Your task to perform on an android device: Show the shopping cart on target. Search for macbook pro 15 inch on target, select the first entry, and add it to the cart. Image 0: 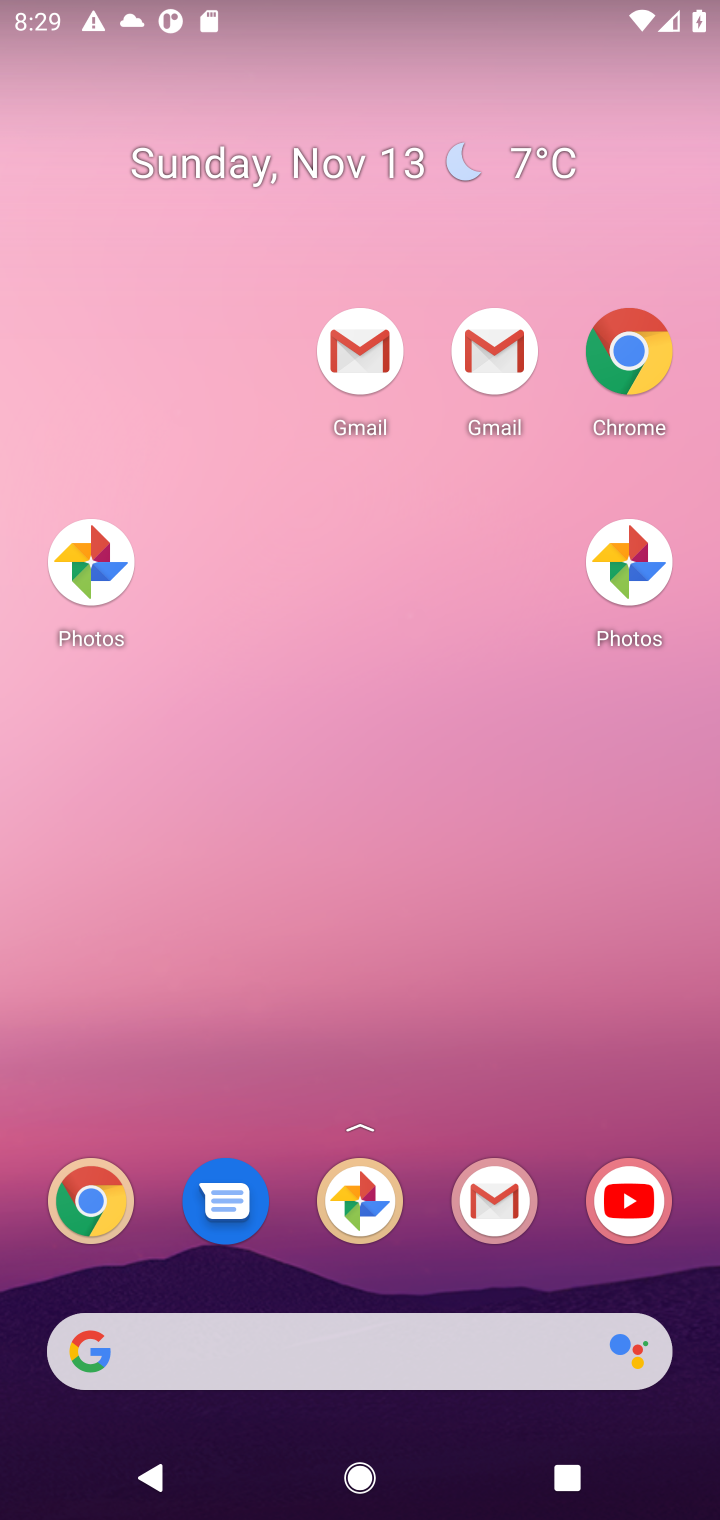
Step 0: drag from (303, 1026) to (145, 198)
Your task to perform on an android device: Show the shopping cart on target. Search for macbook pro 15 inch on target, select the first entry, and add it to the cart. Image 1: 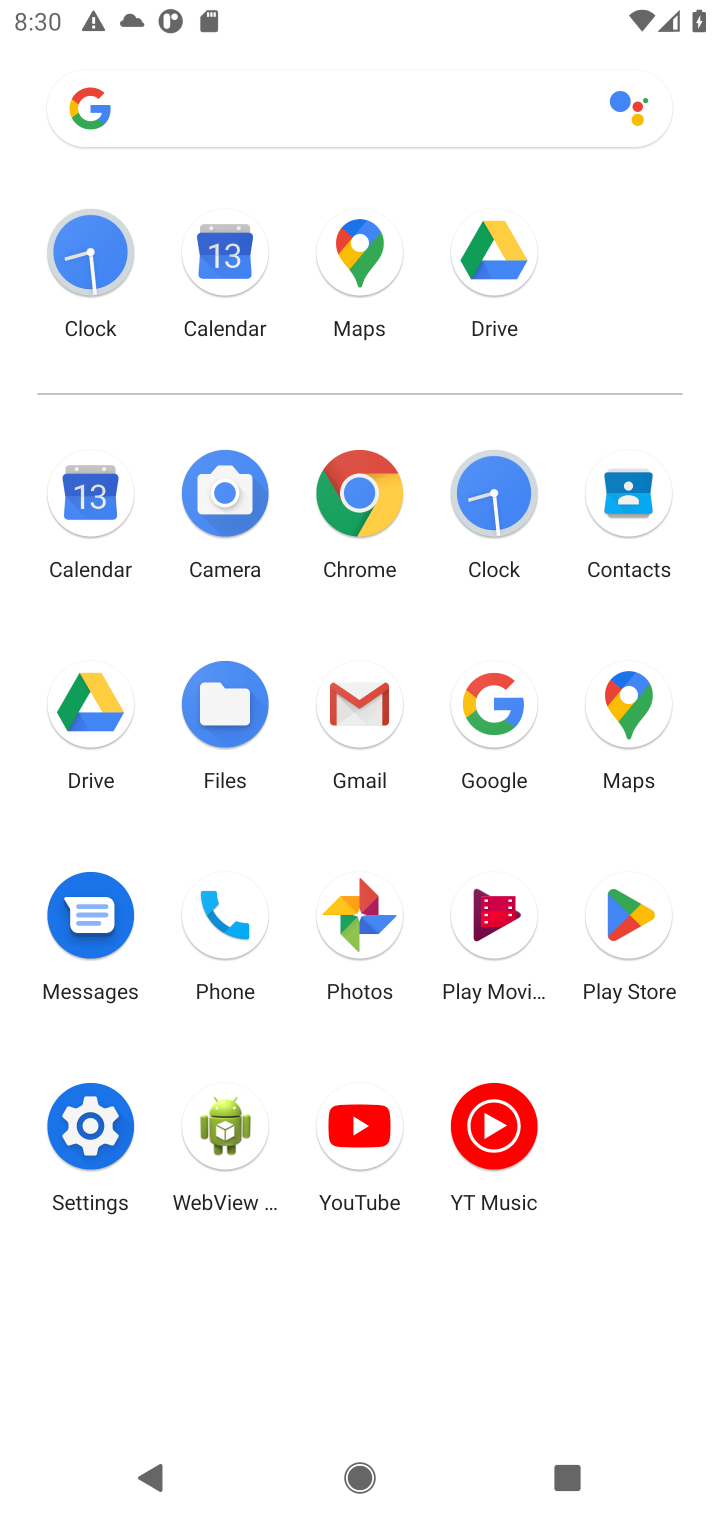
Step 1: click (357, 485)
Your task to perform on an android device: Show the shopping cart on target. Search for macbook pro 15 inch on target, select the first entry, and add it to the cart. Image 2: 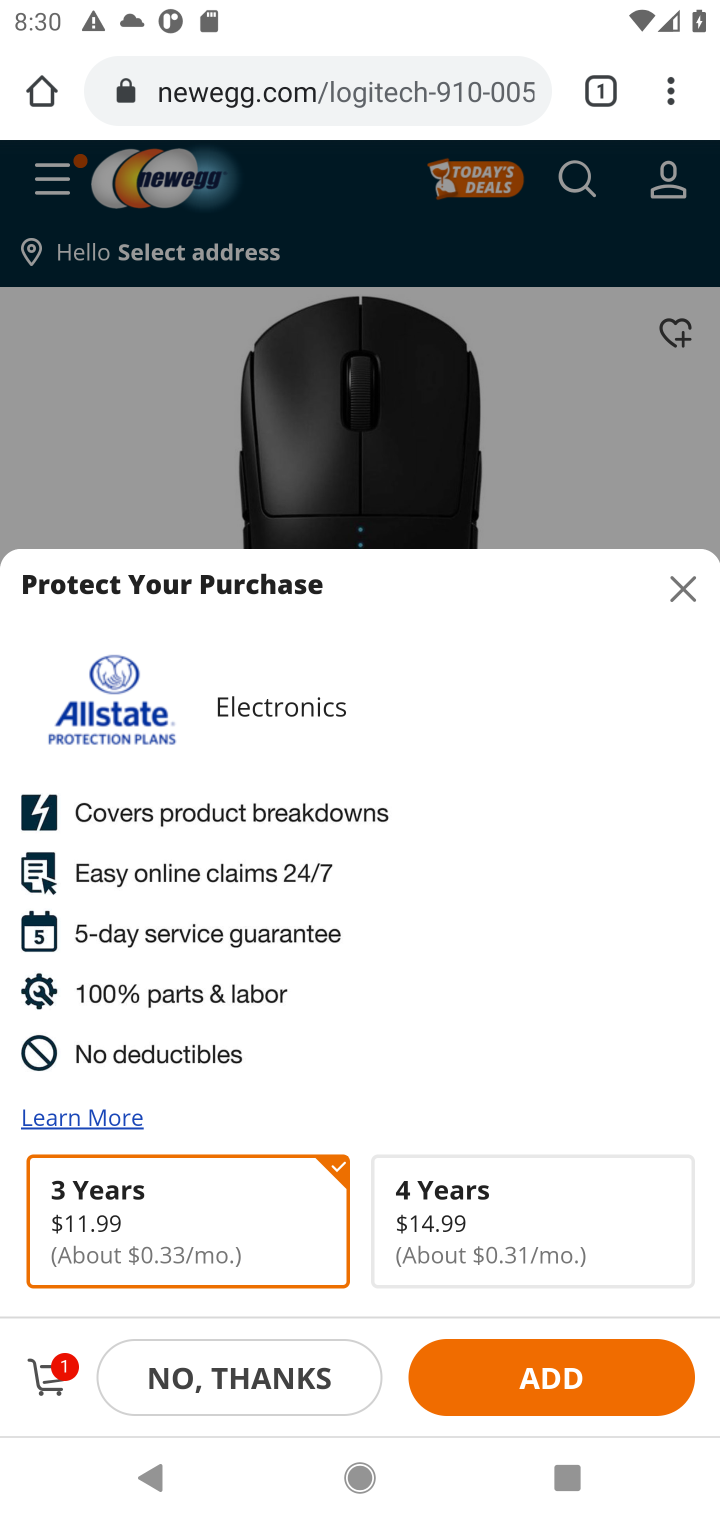
Step 2: click (341, 66)
Your task to perform on an android device: Show the shopping cart on target. Search for macbook pro 15 inch on target, select the first entry, and add it to the cart. Image 3: 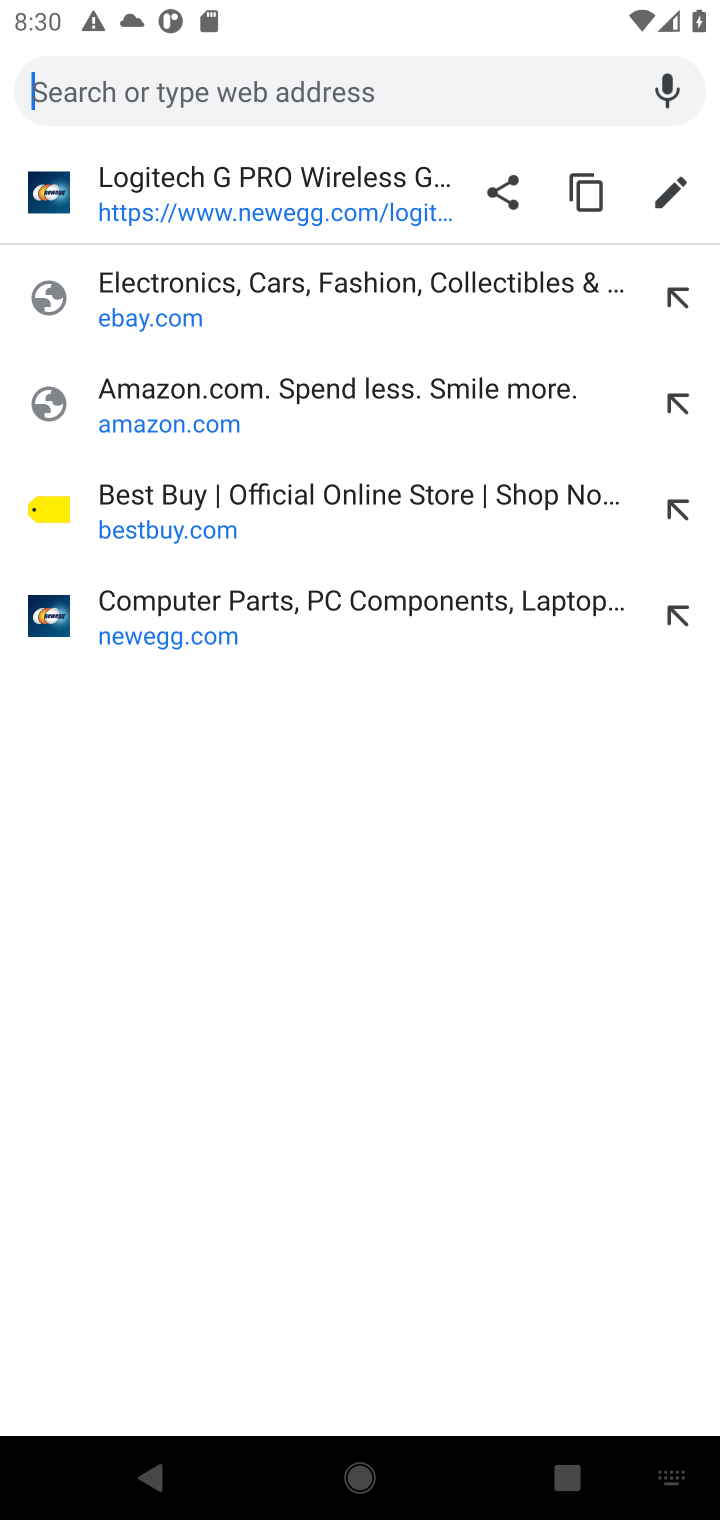
Step 3: type "target.com"
Your task to perform on an android device: Show the shopping cart on target. Search for macbook pro 15 inch on target, select the first entry, and add it to the cart. Image 4: 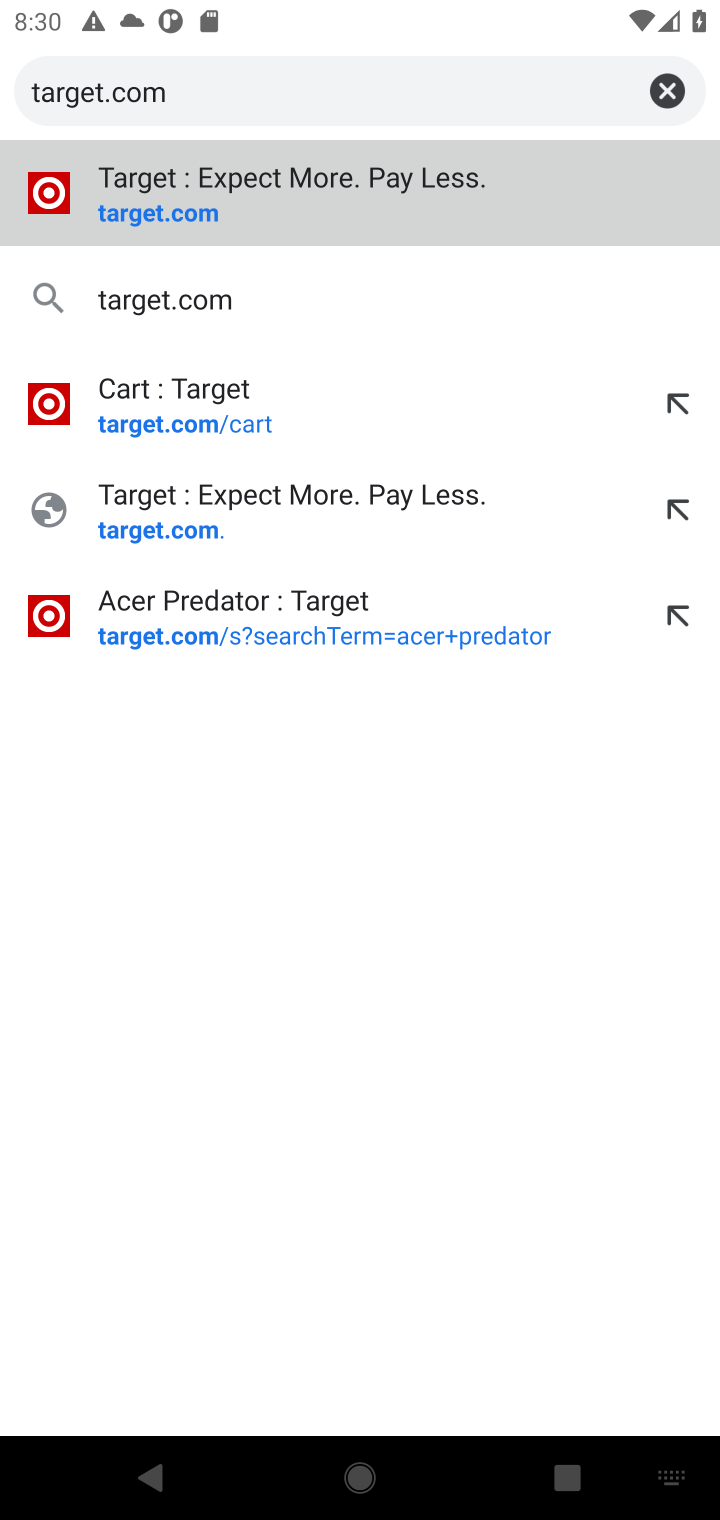
Step 4: press enter
Your task to perform on an android device: Show the shopping cart on target. Search for macbook pro 15 inch on target, select the first entry, and add it to the cart. Image 5: 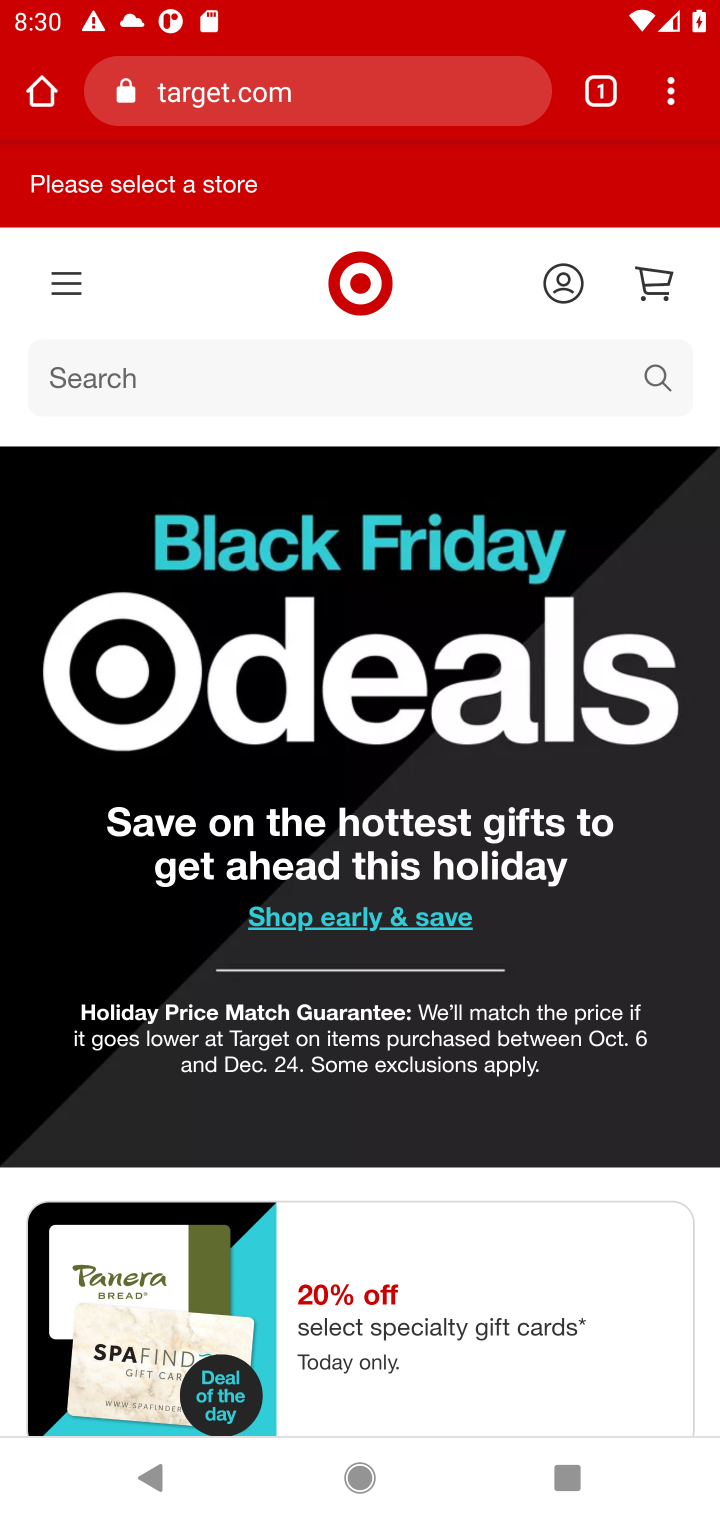
Step 5: click (649, 272)
Your task to perform on an android device: Show the shopping cart on target. Search for macbook pro 15 inch on target, select the first entry, and add it to the cart. Image 6: 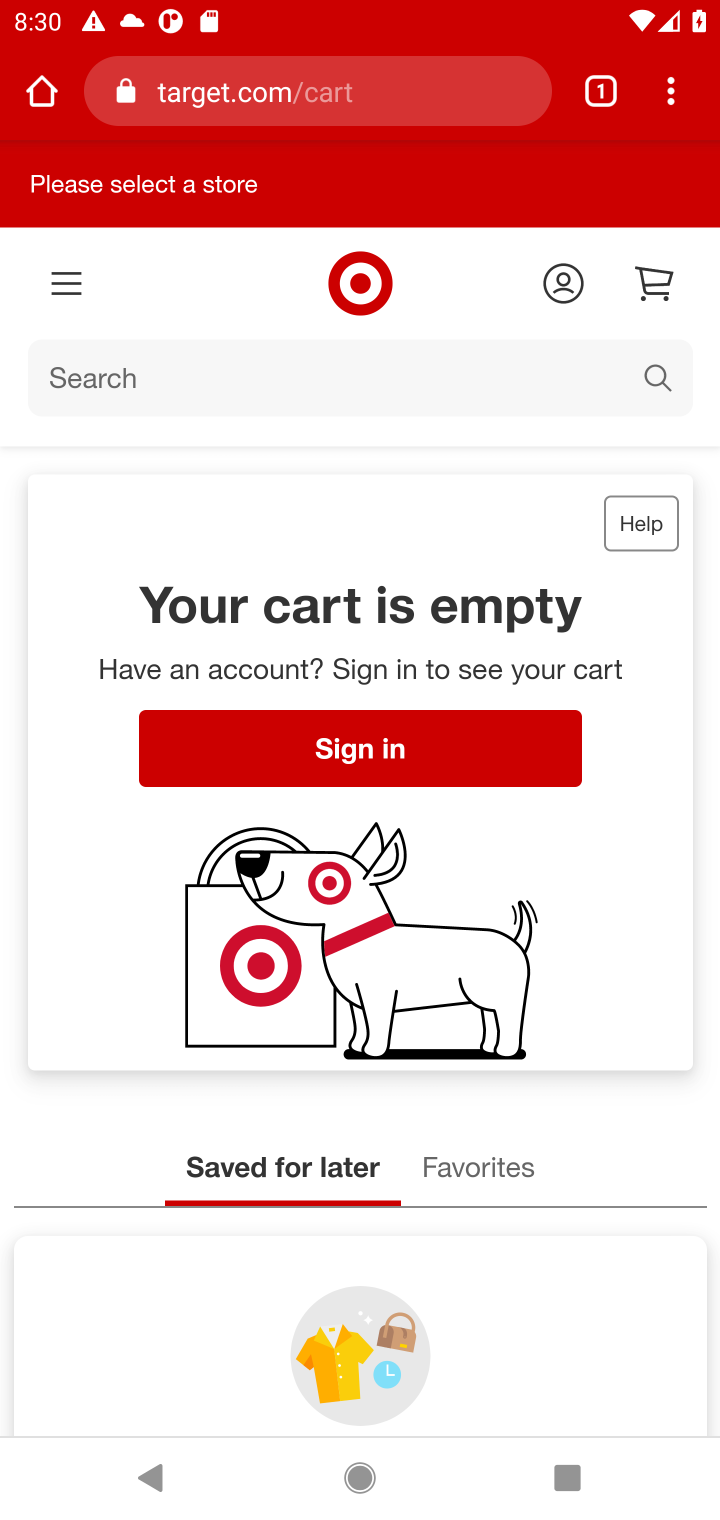
Step 6: click (533, 397)
Your task to perform on an android device: Show the shopping cart on target. Search for macbook pro 15 inch on target, select the first entry, and add it to the cart. Image 7: 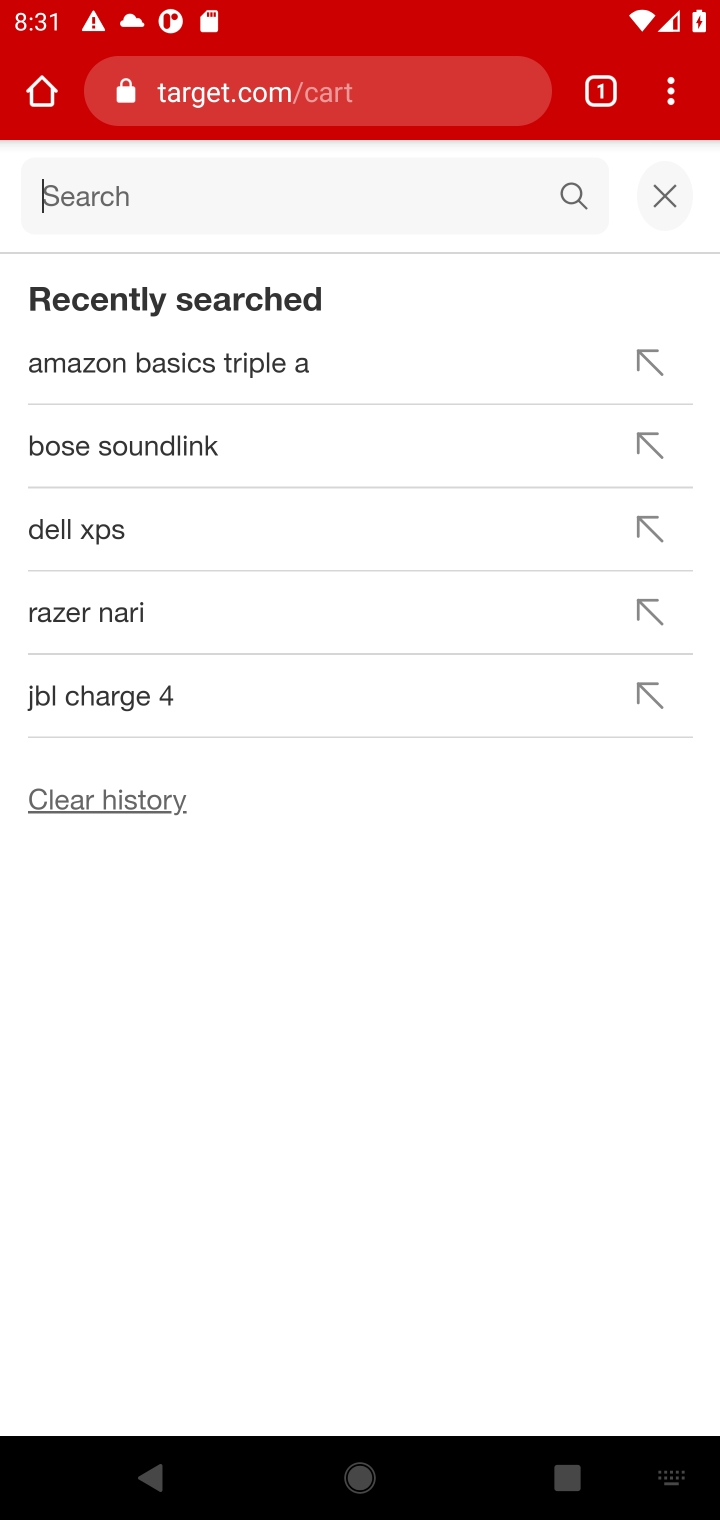
Step 7: type "macbook pro 15 inch"
Your task to perform on an android device: Show the shopping cart on target. Search for macbook pro 15 inch on target, select the first entry, and add it to the cart. Image 8: 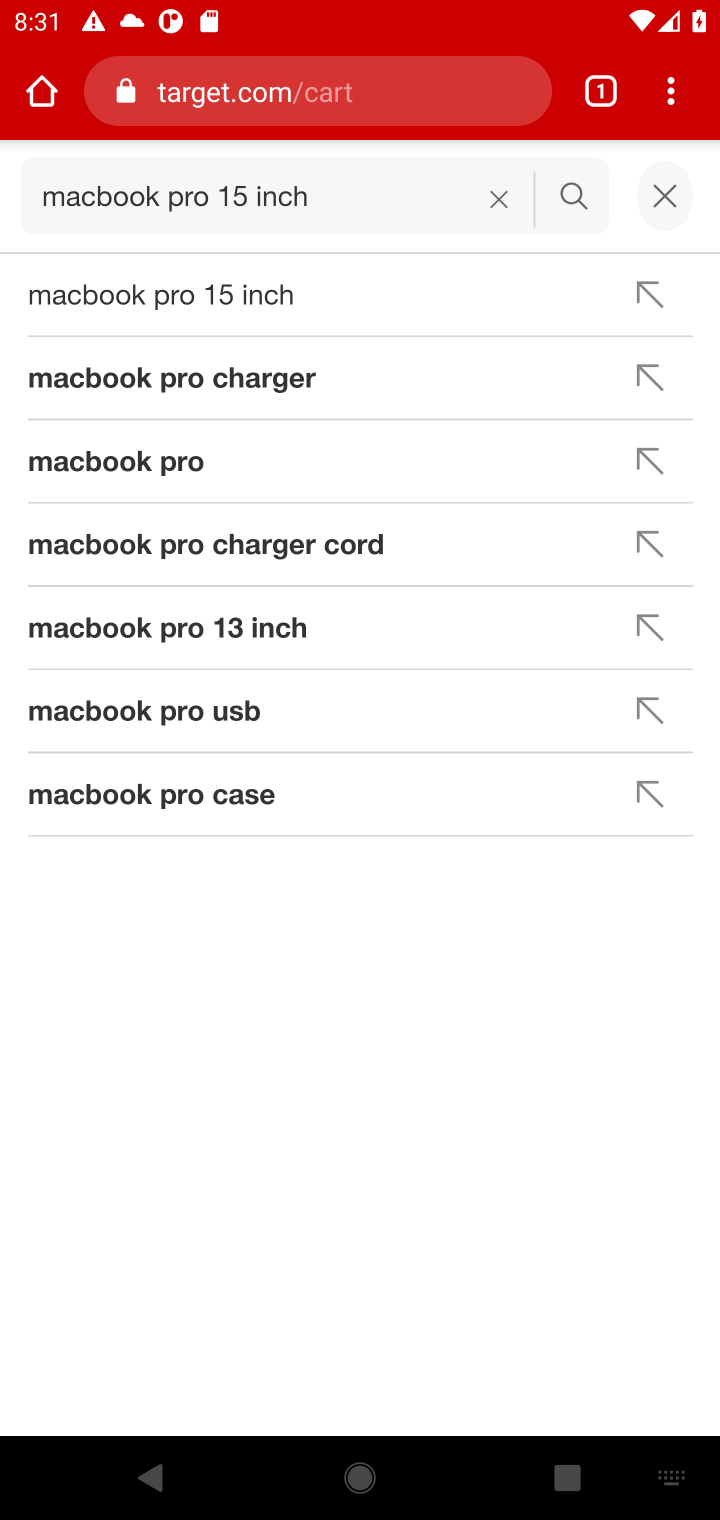
Step 8: press enter
Your task to perform on an android device: Show the shopping cart on target. Search for macbook pro 15 inch on target, select the first entry, and add it to the cart. Image 9: 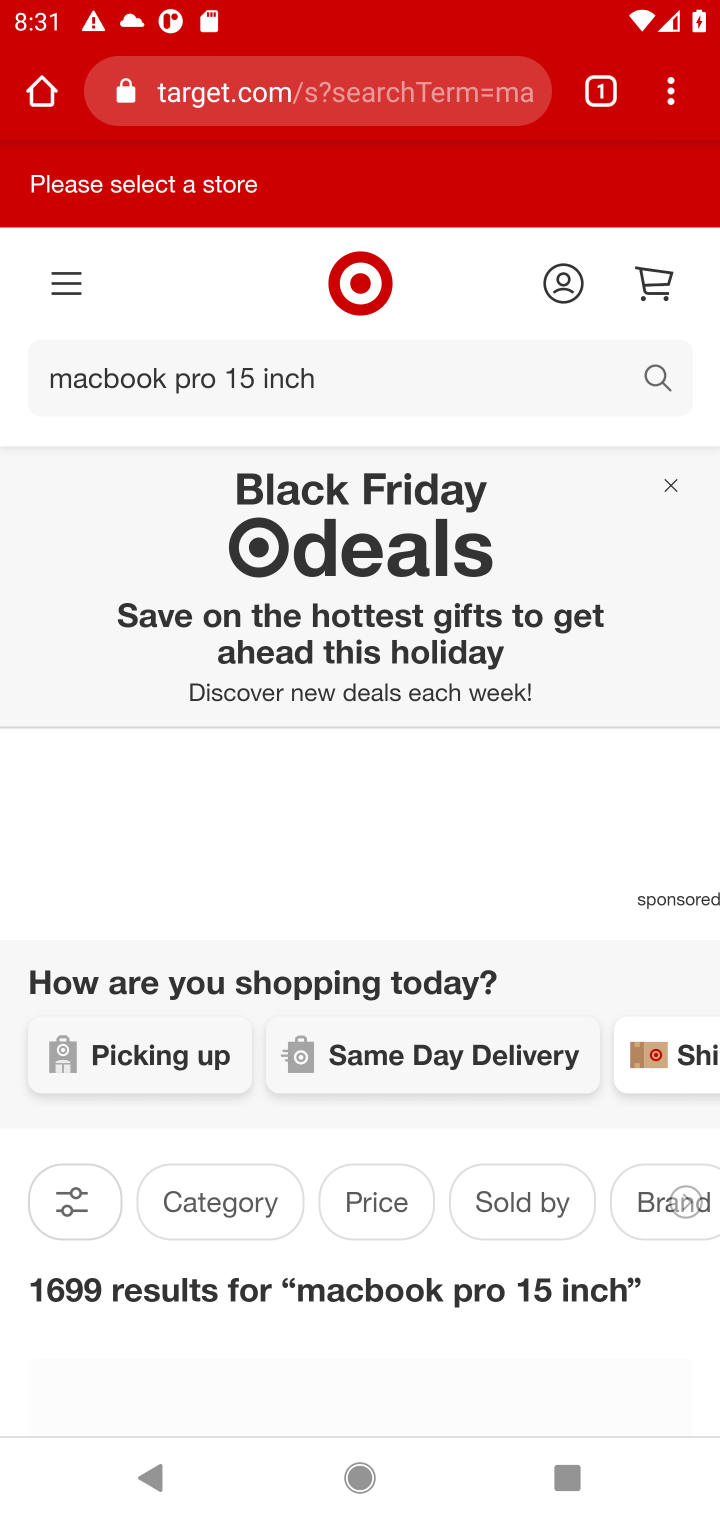
Step 9: task complete